Your task to perform on an android device: Show me popular videos on Youtube Image 0: 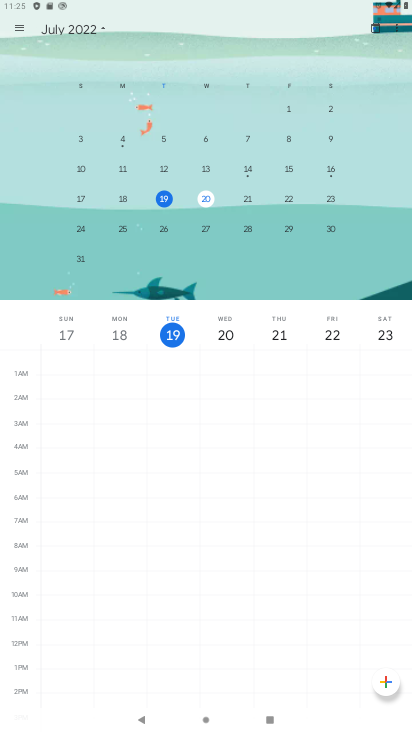
Step 0: press home button
Your task to perform on an android device: Show me popular videos on Youtube Image 1: 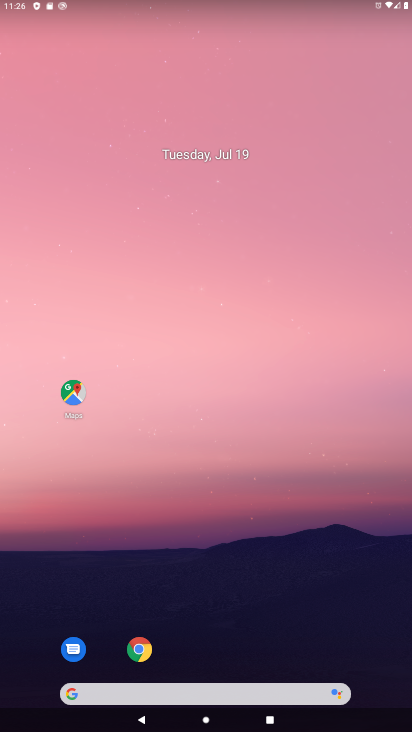
Step 1: drag from (252, 701) to (254, 151)
Your task to perform on an android device: Show me popular videos on Youtube Image 2: 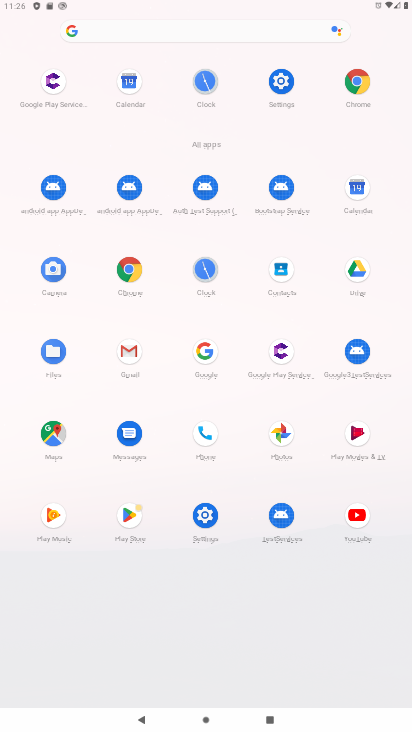
Step 2: click (363, 517)
Your task to perform on an android device: Show me popular videos on Youtube Image 3: 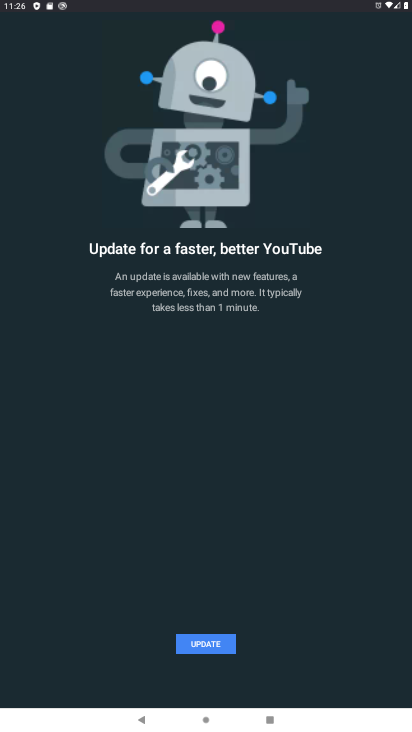
Step 3: click (196, 642)
Your task to perform on an android device: Show me popular videos on Youtube Image 4: 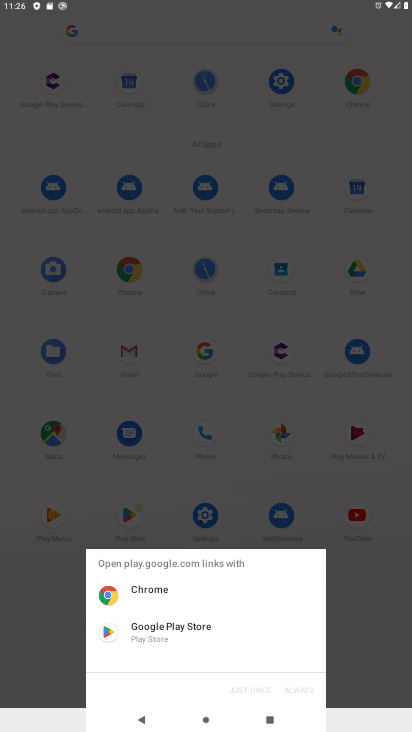
Step 4: click (180, 638)
Your task to perform on an android device: Show me popular videos on Youtube Image 5: 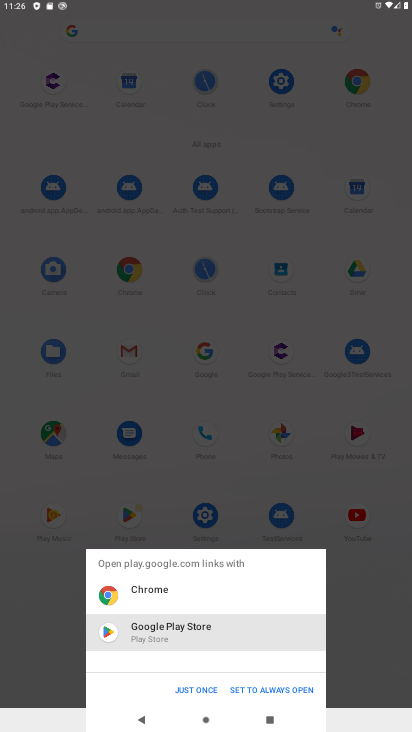
Step 5: click (206, 686)
Your task to perform on an android device: Show me popular videos on Youtube Image 6: 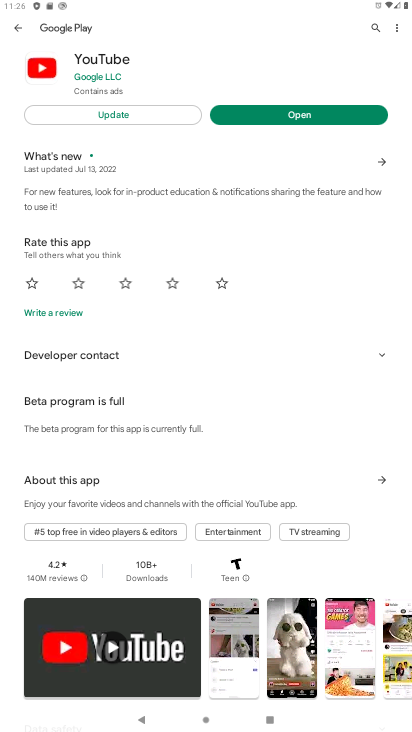
Step 6: click (140, 115)
Your task to perform on an android device: Show me popular videos on Youtube Image 7: 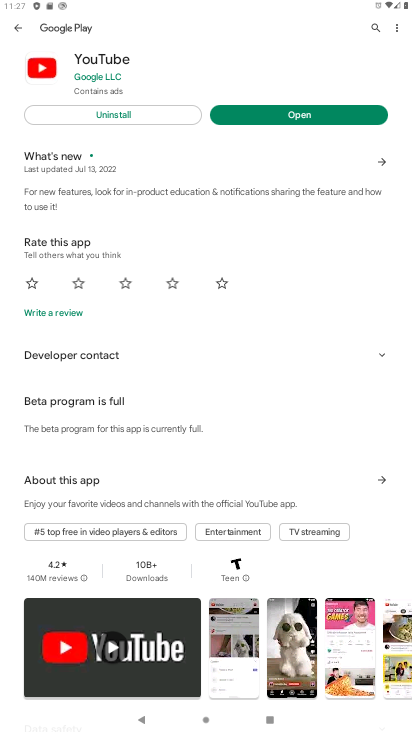
Step 7: click (293, 112)
Your task to perform on an android device: Show me popular videos on Youtube Image 8: 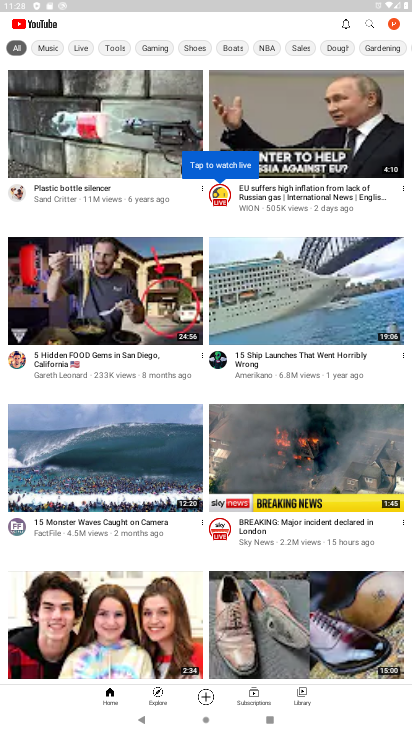
Step 8: task complete